Your task to perform on an android device: What's the weather today? Image 0: 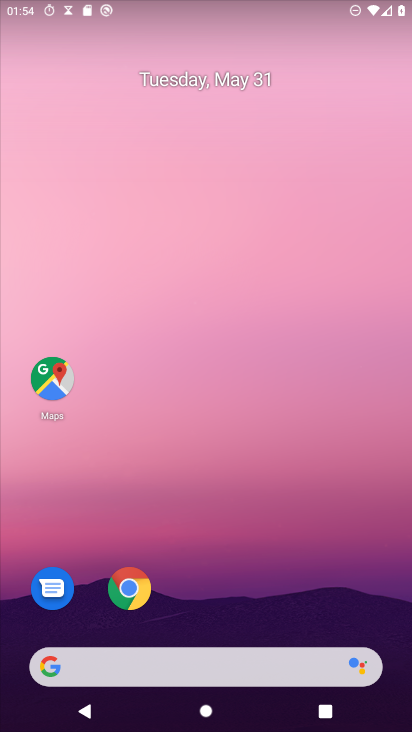
Step 0: drag from (320, 673) to (284, 49)
Your task to perform on an android device: What's the weather today? Image 1: 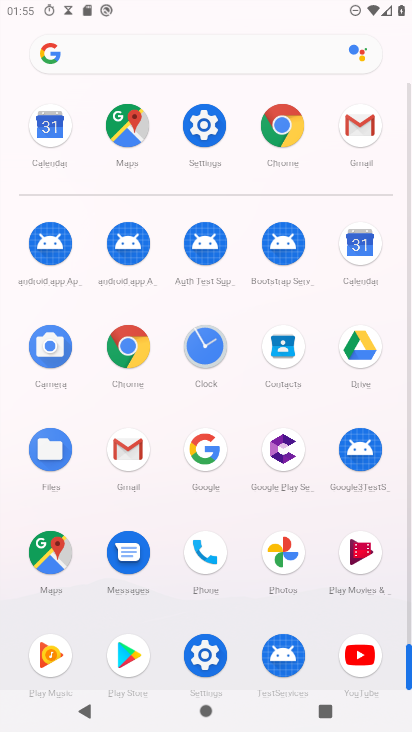
Step 1: press home button
Your task to perform on an android device: What's the weather today? Image 2: 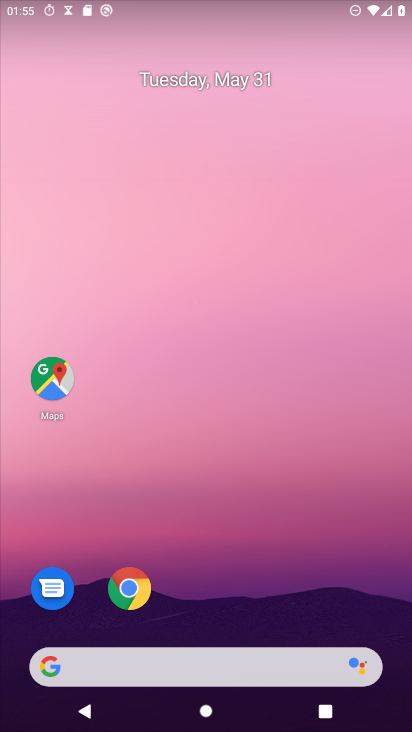
Step 2: drag from (36, 281) to (402, 287)
Your task to perform on an android device: What's the weather today? Image 3: 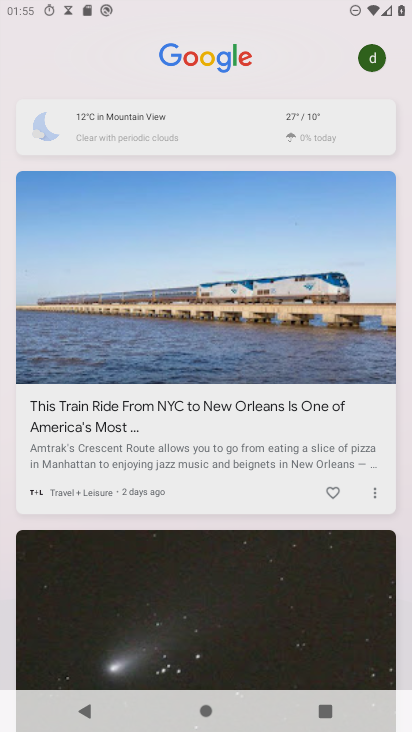
Step 3: click (195, 124)
Your task to perform on an android device: What's the weather today? Image 4: 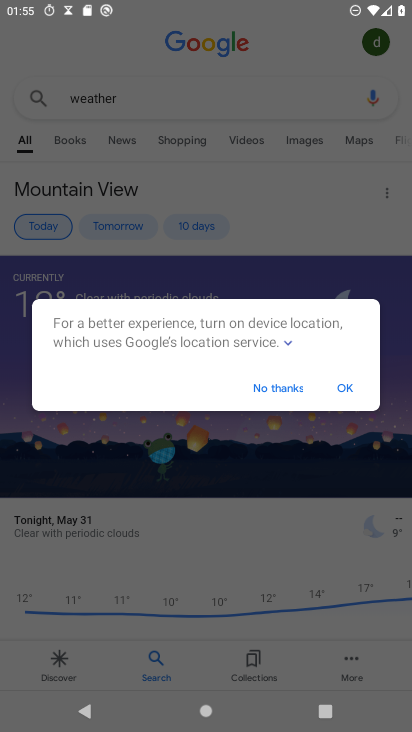
Step 4: click (286, 388)
Your task to perform on an android device: What's the weather today? Image 5: 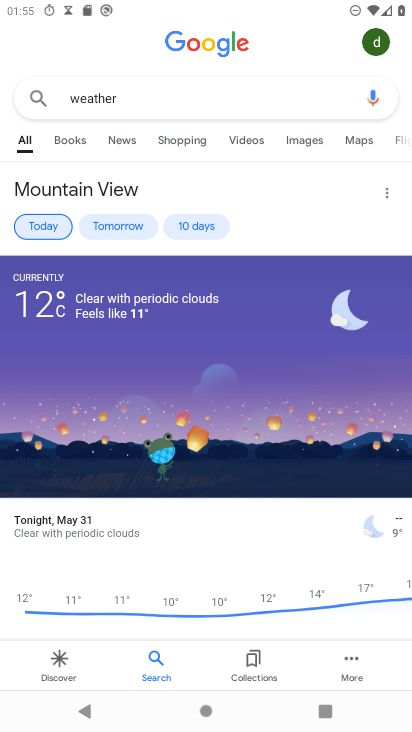
Step 5: task complete